Your task to perform on an android device: delete a single message in the gmail app Image 0: 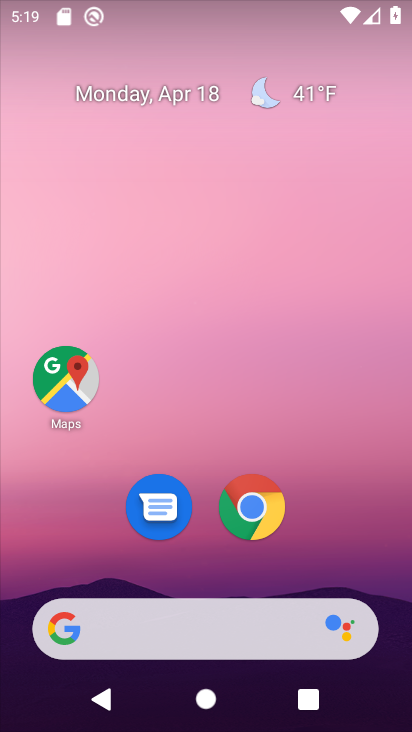
Step 0: drag from (314, 580) to (317, 43)
Your task to perform on an android device: delete a single message in the gmail app Image 1: 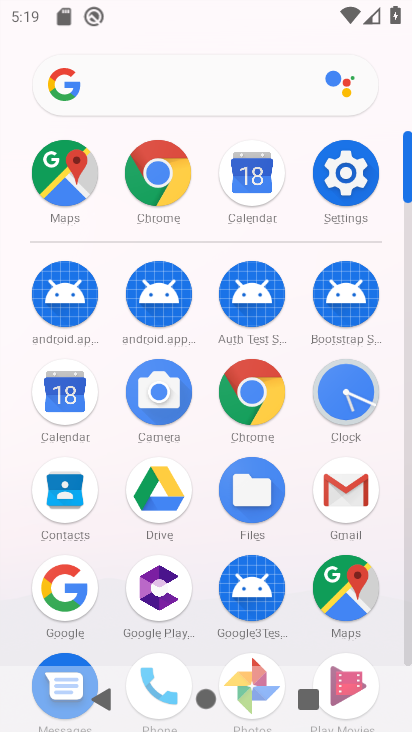
Step 1: click (359, 485)
Your task to perform on an android device: delete a single message in the gmail app Image 2: 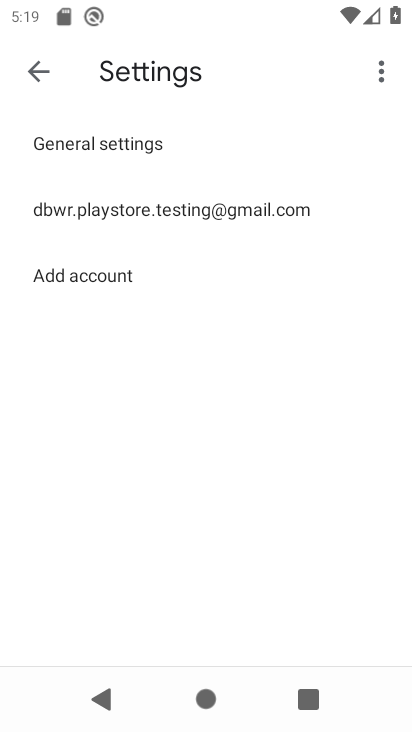
Step 2: press home button
Your task to perform on an android device: delete a single message in the gmail app Image 3: 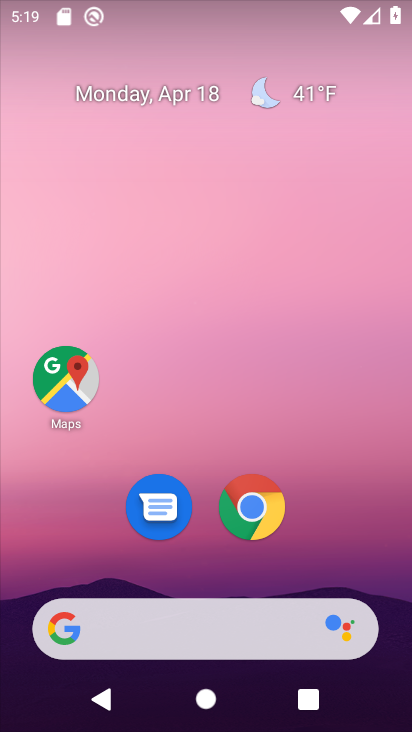
Step 3: drag from (258, 611) to (279, 2)
Your task to perform on an android device: delete a single message in the gmail app Image 4: 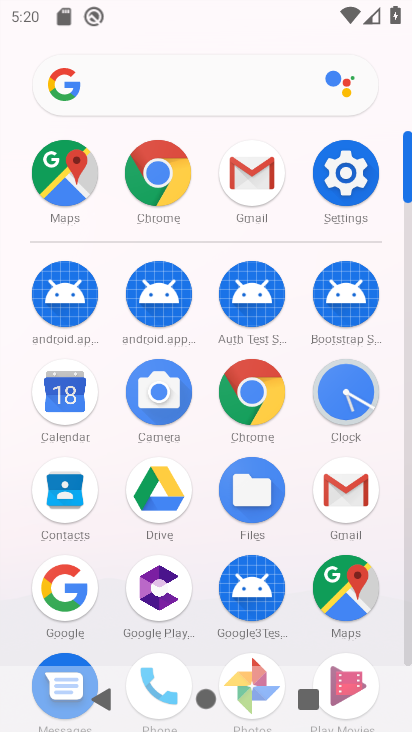
Step 4: click (338, 485)
Your task to perform on an android device: delete a single message in the gmail app Image 5: 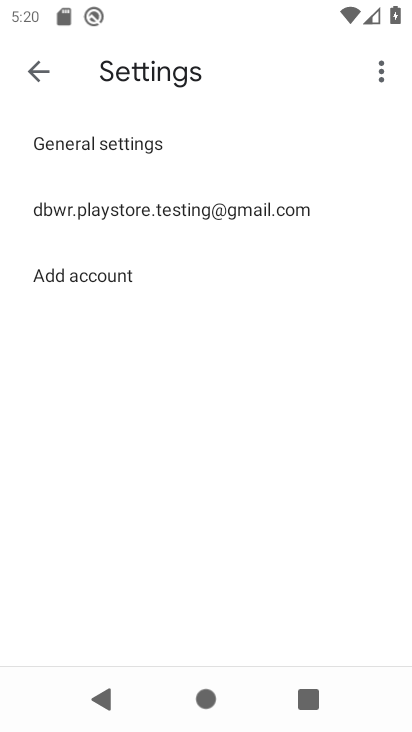
Step 5: click (33, 74)
Your task to perform on an android device: delete a single message in the gmail app Image 6: 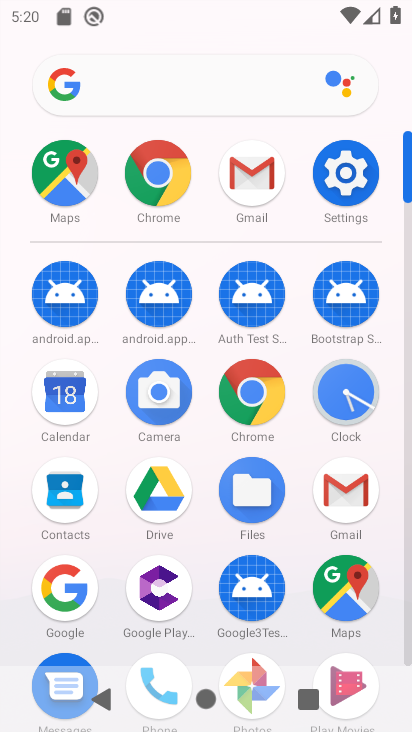
Step 6: click (342, 504)
Your task to perform on an android device: delete a single message in the gmail app Image 7: 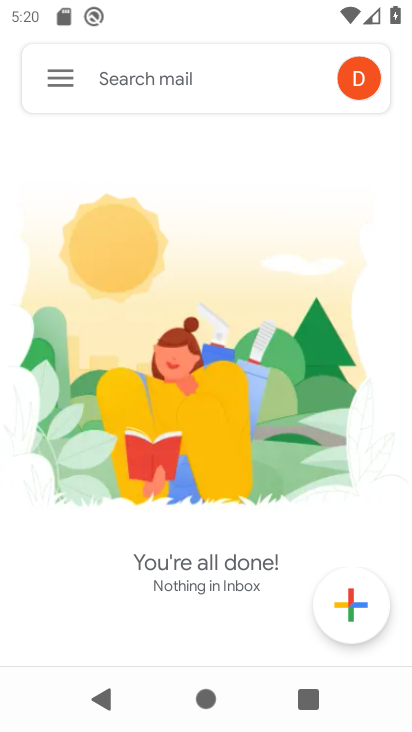
Step 7: click (56, 68)
Your task to perform on an android device: delete a single message in the gmail app Image 8: 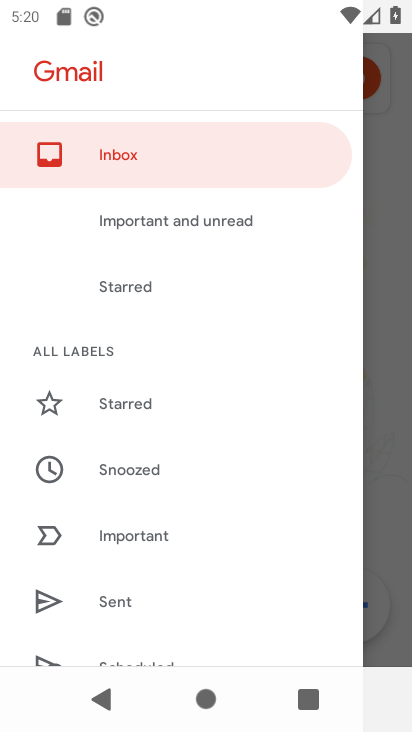
Step 8: drag from (259, 525) to (240, 103)
Your task to perform on an android device: delete a single message in the gmail app Image 9: 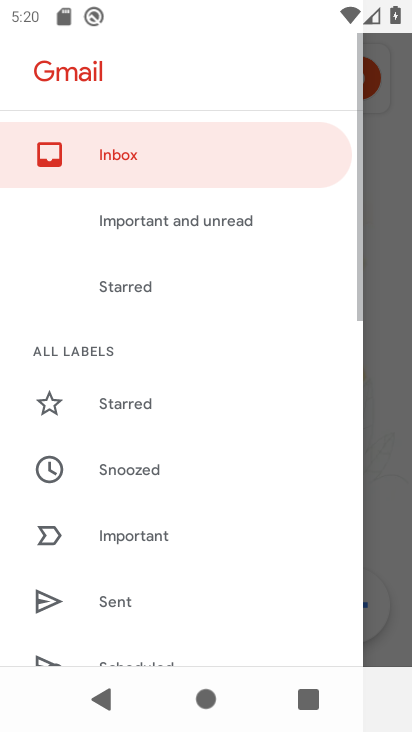
Step 9: drag from (153, 522) to (143, 172)
Your task to perform on an android device: delete a single message in the gmail app Image 10: 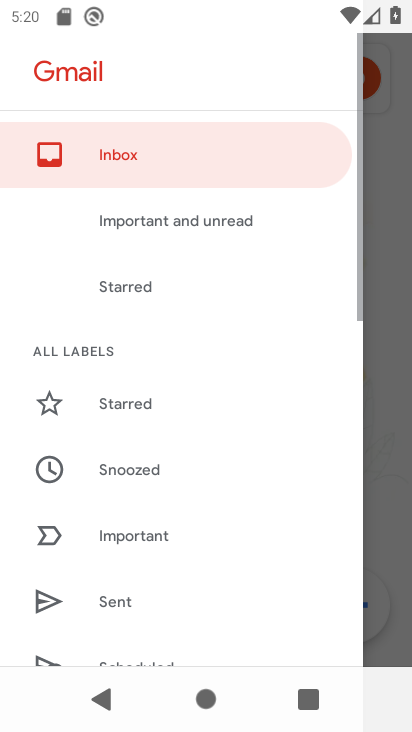
Step 10: drag from (177, 660) to (161, 189)
Your task to perform on an android device: delete a single message in the gmail app Image 11: 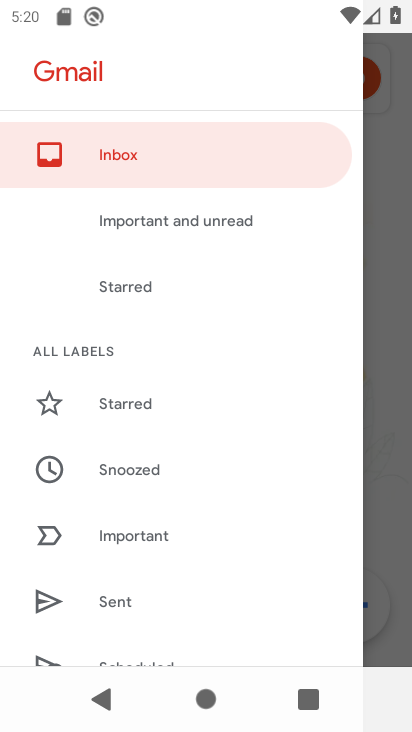
Step 11: click (162, 538)
Your task to perform on an android device: delete a single message in the gmail app Image 12: 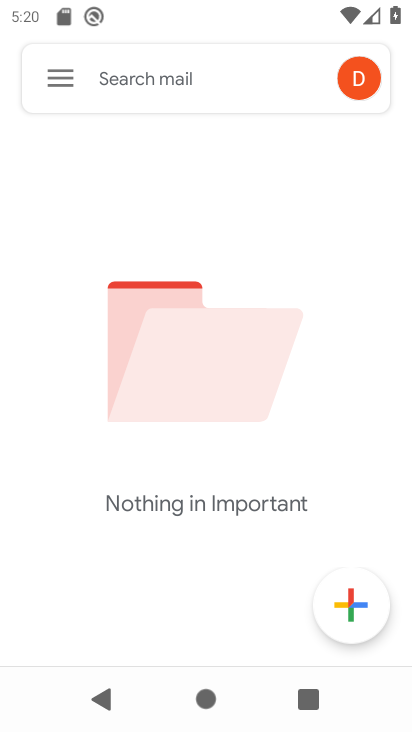
Step 12: task complete